Your task to perform on an android device: turn off location history Image 0: 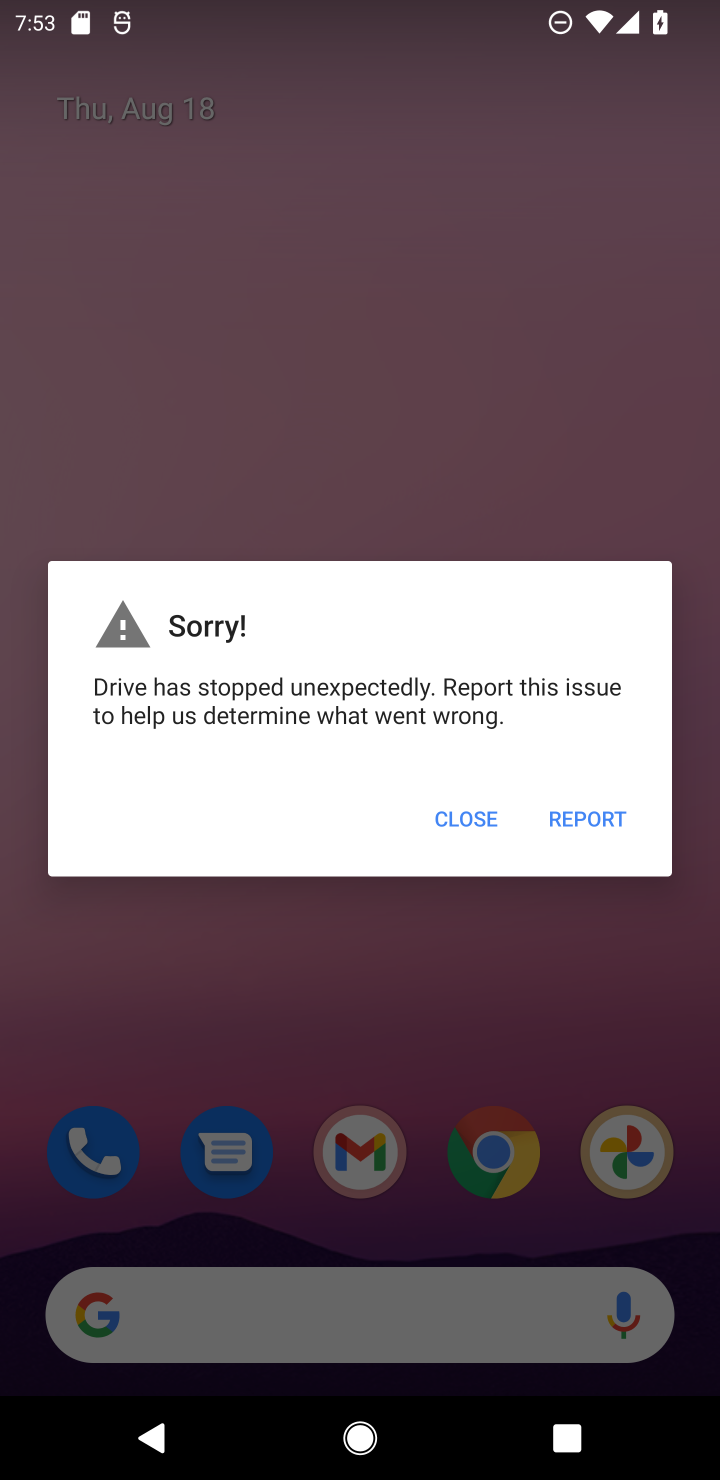
Step 0: press home button
Your task to perform on an android device: turn off location history Image 1: 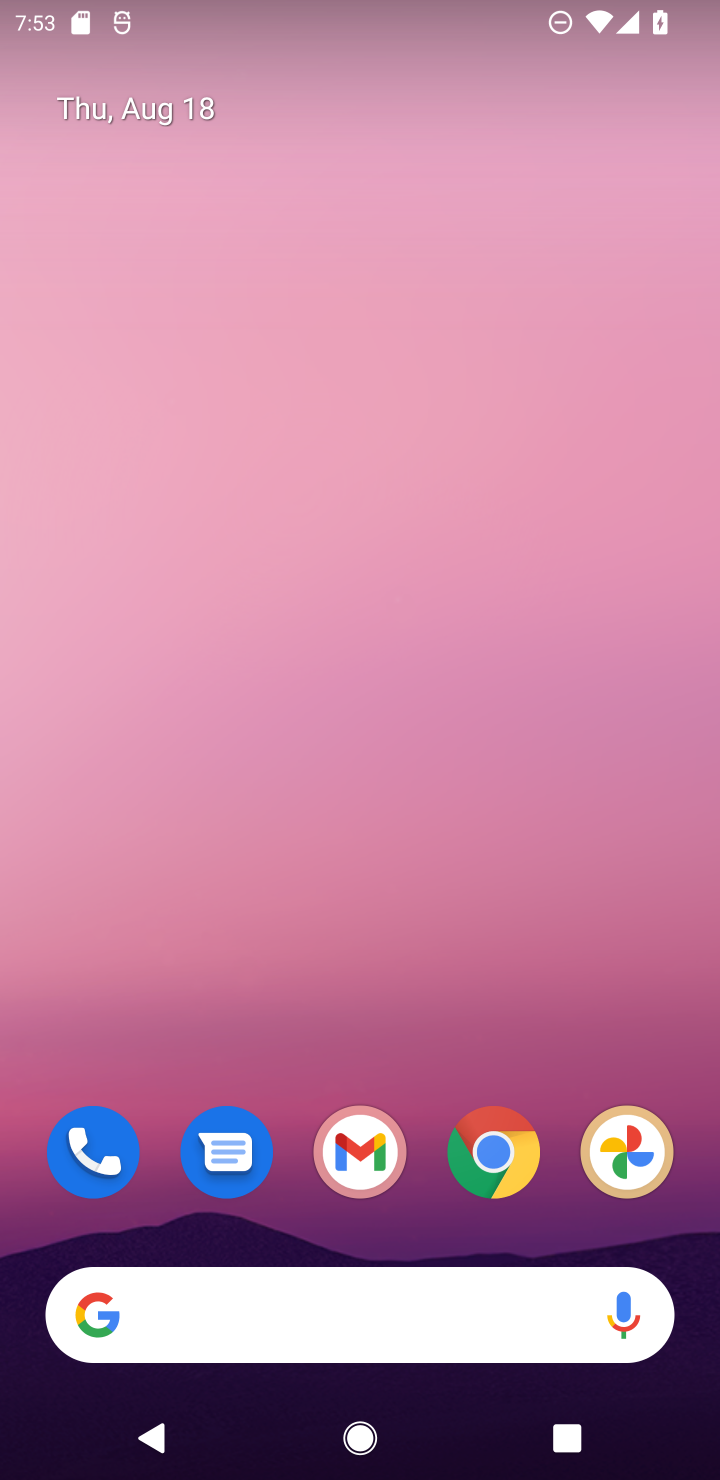
Step 1: drag from (439, 1021) to (439, 102)
Your task to perform on an android device: turn off location history Image 2: 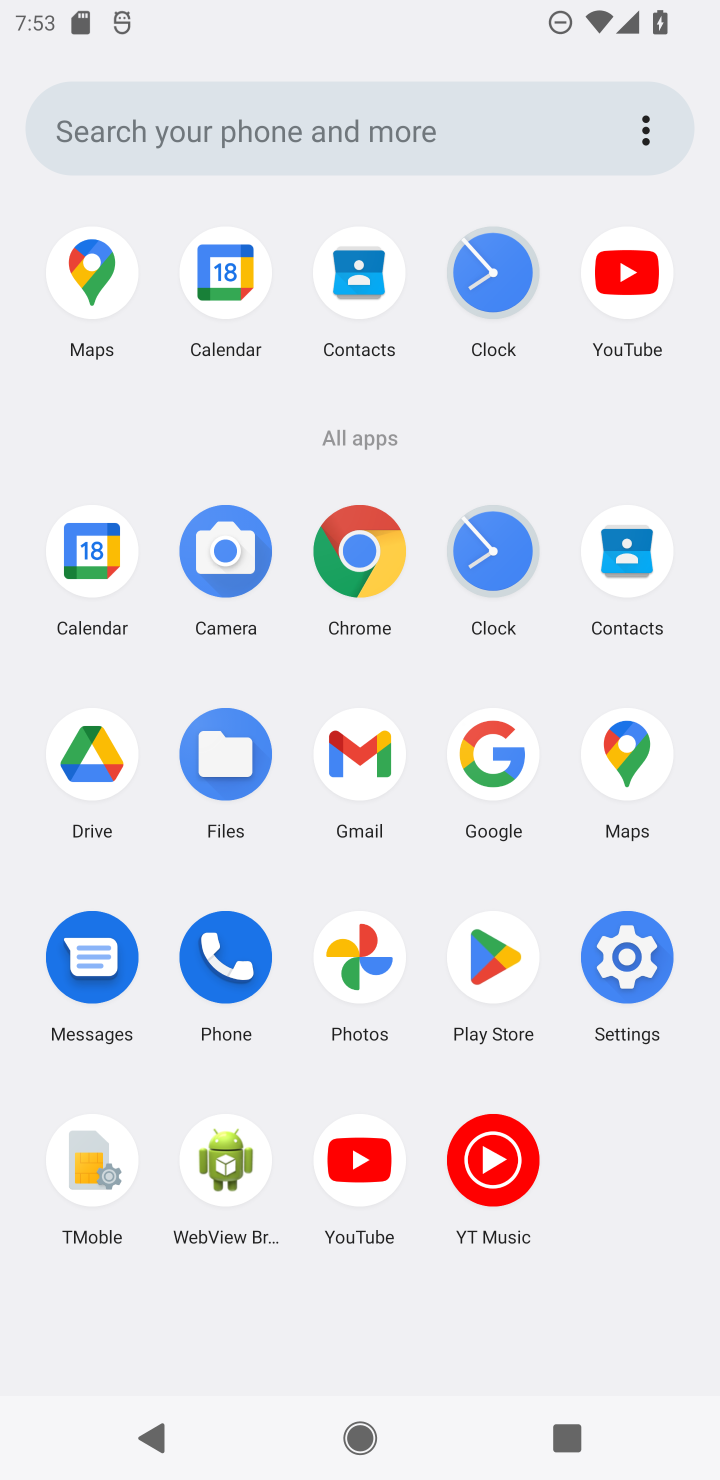
Step 2: click (611, 958)
Your task to perform on an android device: turn off location history Image 3: 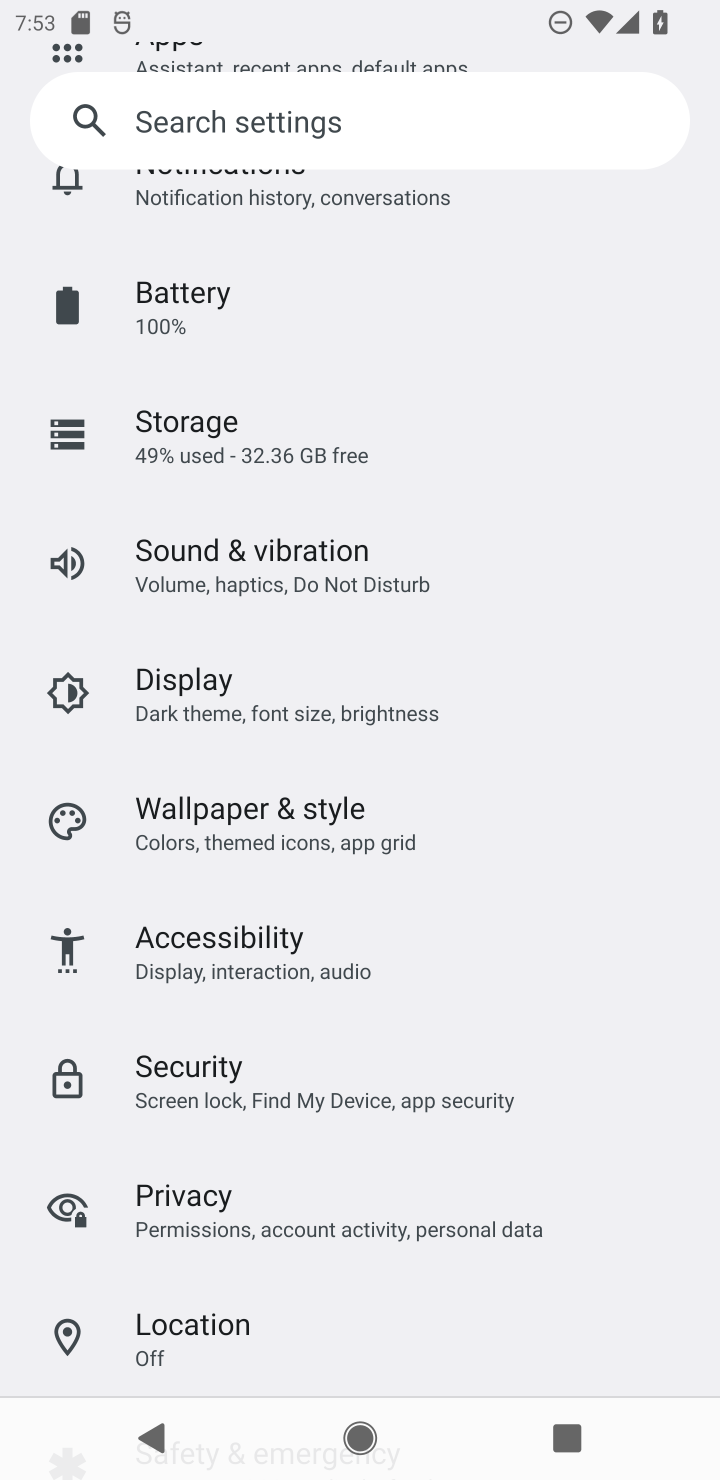
Step 3: click (224, 1321)
Your task to perform on an android device: turn off location history Image 4: 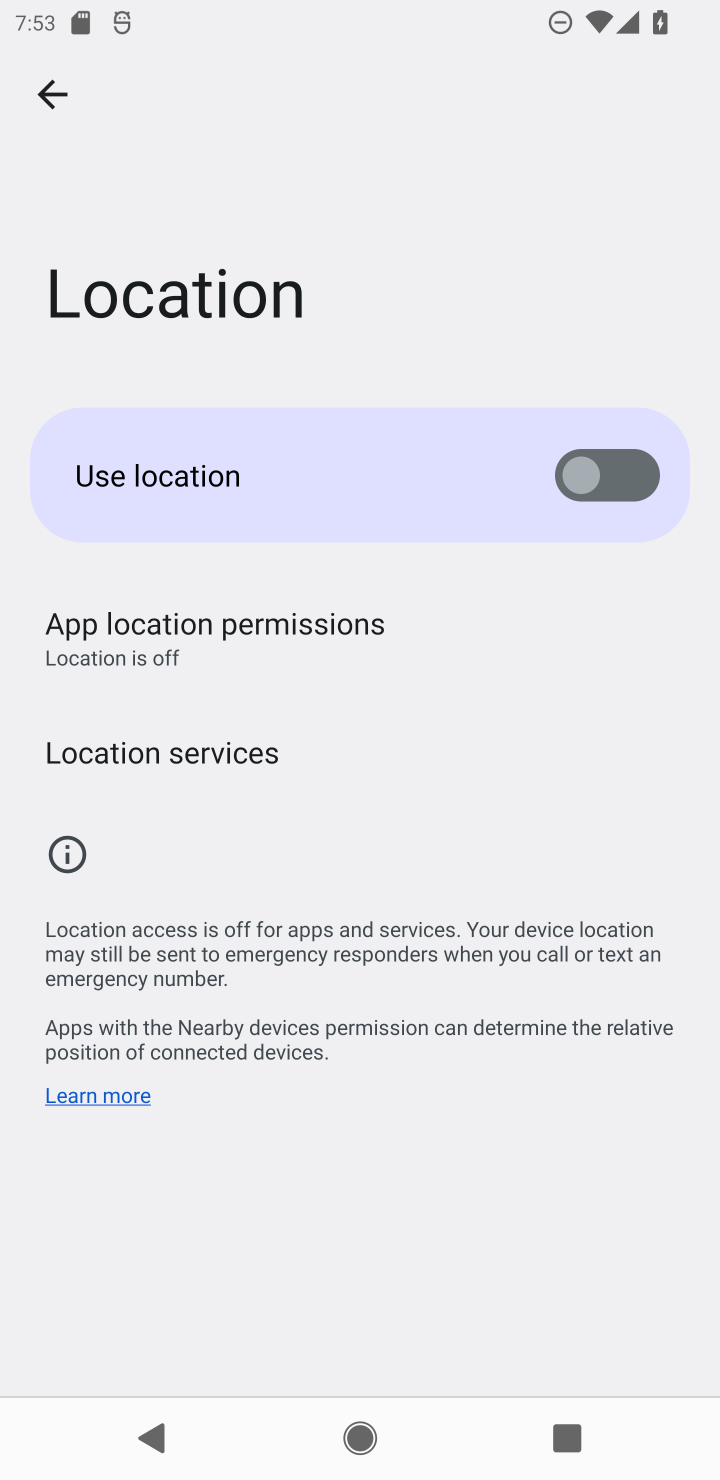
Step 4: task complete